Your task to perform on an android device: open device folders in google photos Image 0: 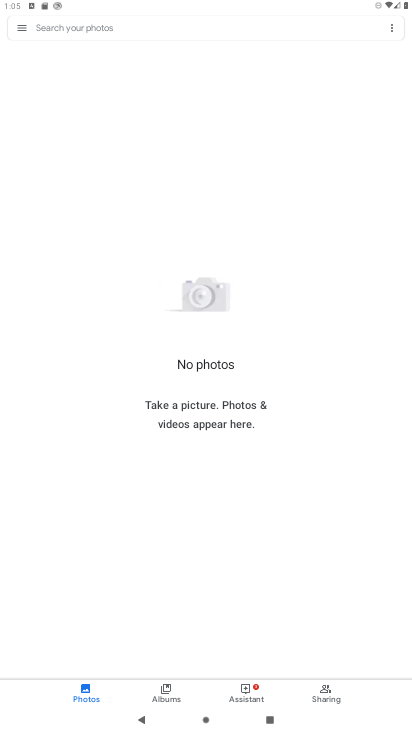
Step 0: press home button
Your task to perform on an android device: open device folders in google photos Image 1: 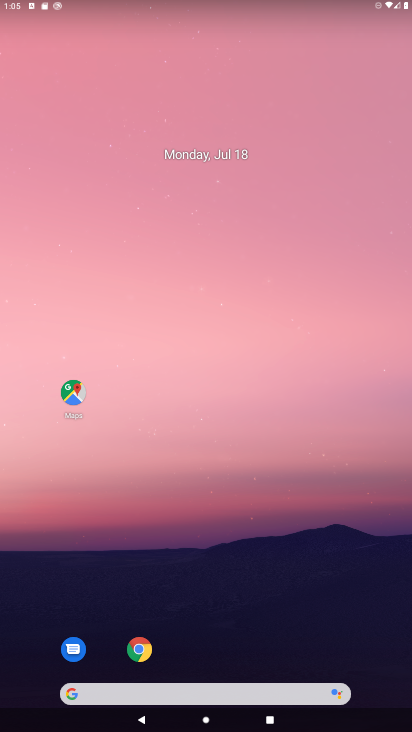
Step 1: drag from (378, 655) to (315, 258)
Your task to perform on an android device: open device folders in google photos Image 2: 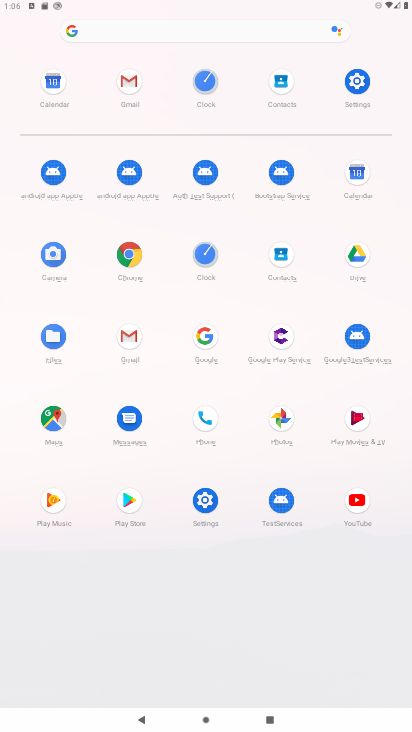
Step 2: click (283, 419)
Your task to perform on an android device: open device folders in google photos Image 3: 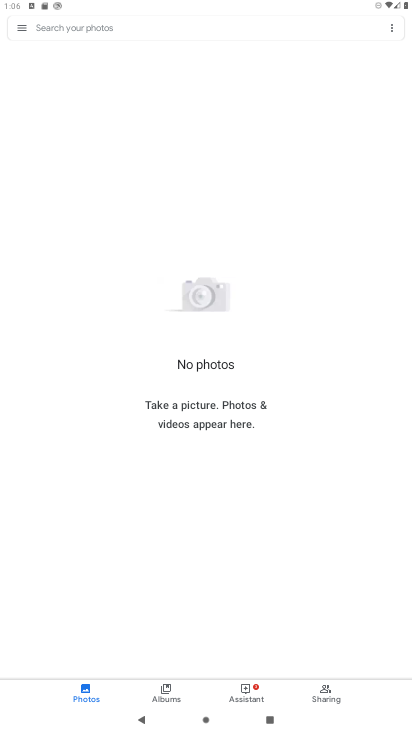
Step 3: click (22, 28)
Your task to perform on an android device: open device folders in google photos Image 4: 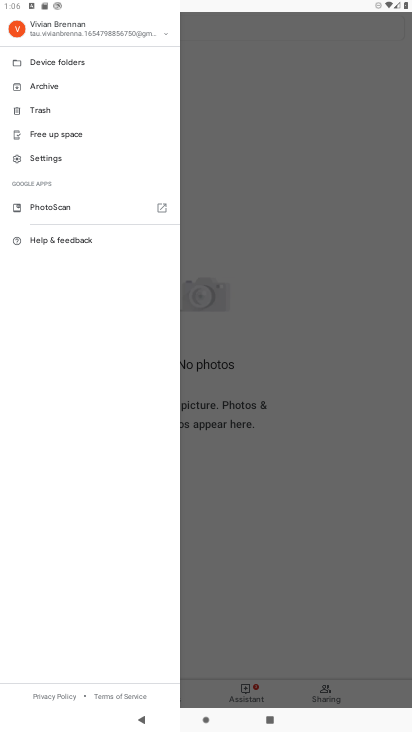
Step 4: click (52, 60)
Your task to perform on an android device: open device folders in google photos Image 5: 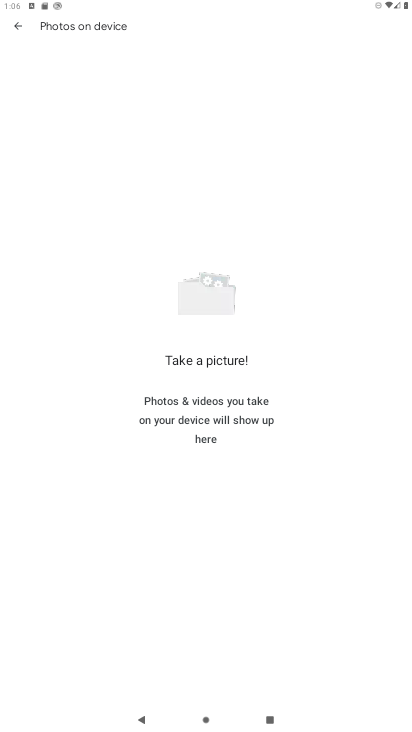
Step 5: task complete